Your task to perform on an android device: Open the calendar app, open the side menu, and click the "Day" option Image 0: 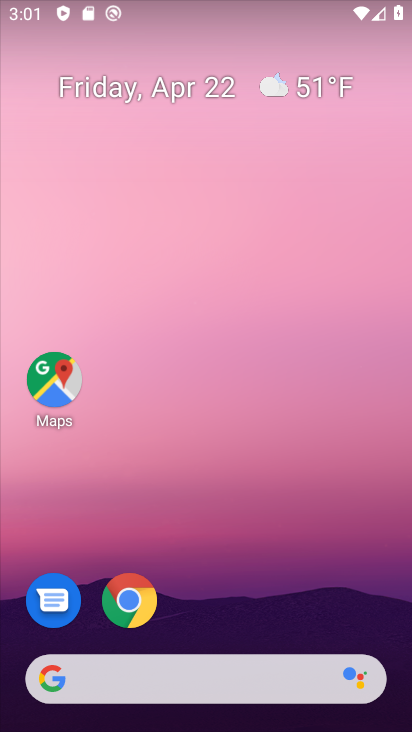
Step 0: click (143, 120)
Your task to perform on an android device: Open the calendar app, open the side menu, and click the "Day" option Image 1: 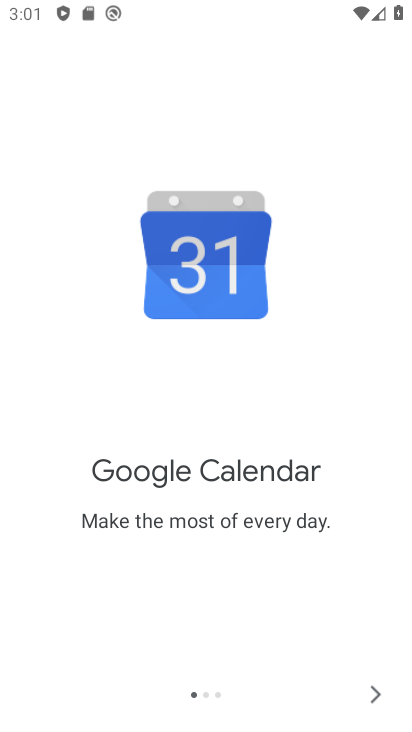
Step 1: click (365, 688)
Your task to perform on an android device: Open the calendar app, open the side menu, and click the "Day" option Image 2: 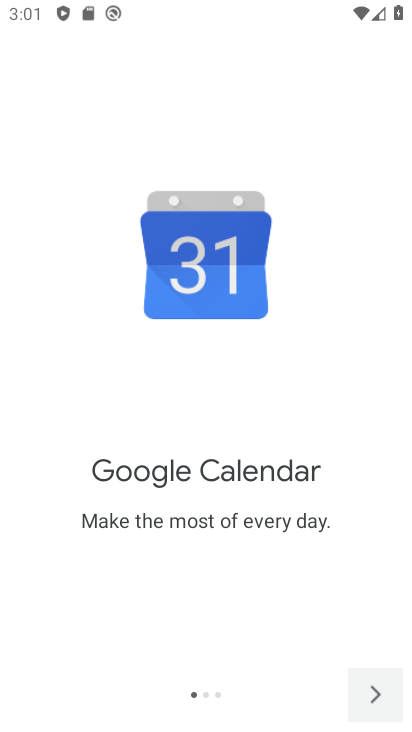
Step 2: click (370, 690)
Your task to perform on an android device: Open the calendar app, open the side menu, and click the "Day" option Image 3: 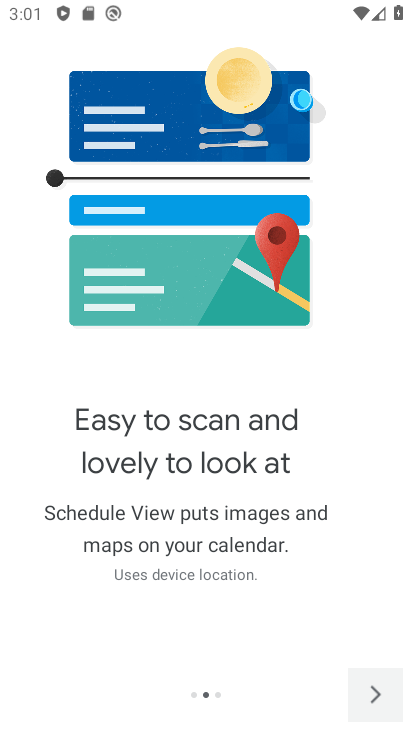
Step 3: click (368, 688)
Your task to perform on an android device: Open the calendar app, open the side menu, and click the "Day" option Image 4: 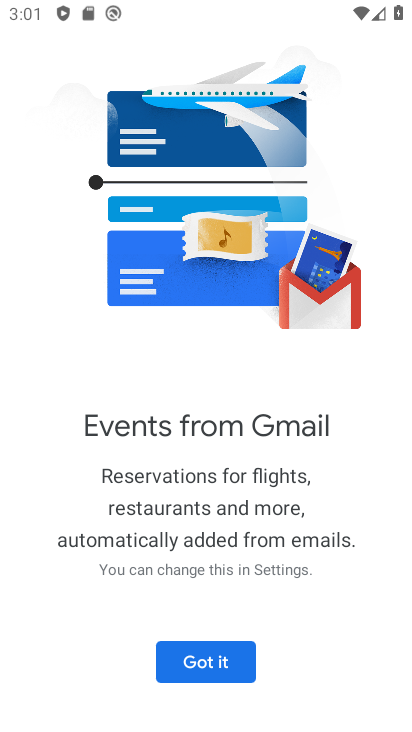
Step 4: click (370, 682)
Your task to perform on an android device: Open the calendar app, open the side menu, and click the "Day" option Image 5: 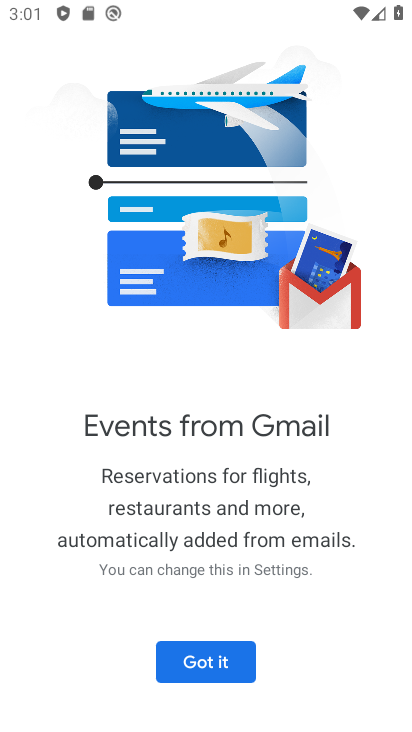
Step 5: click (204, 656)
Your task to perform on an android device: Open the calendar app, open the side menu, and click the "Day" option Image 6: 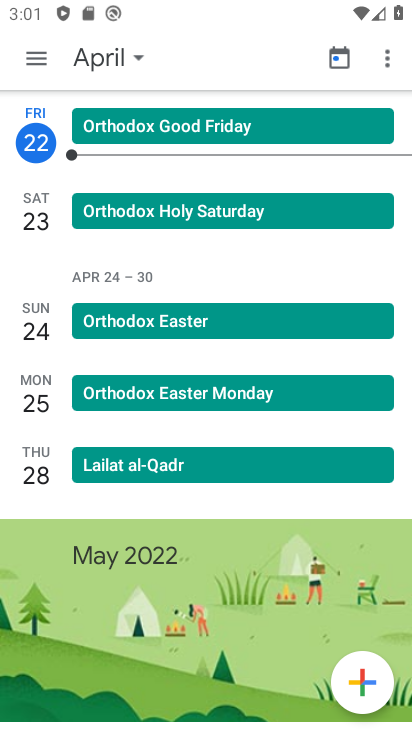
Step 6: click (34, 60)
Your task to perform on an android device: Open the calendar app, open the side menu, and click the "Day" option Image 7: 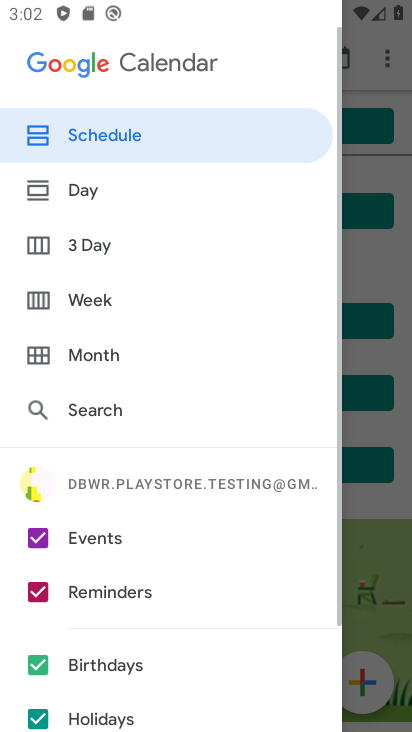
Step 7: click (89, 183)
Your task to perform on an android device: Open the calendar app, open the side menu, and click the "Day" option Image 8: 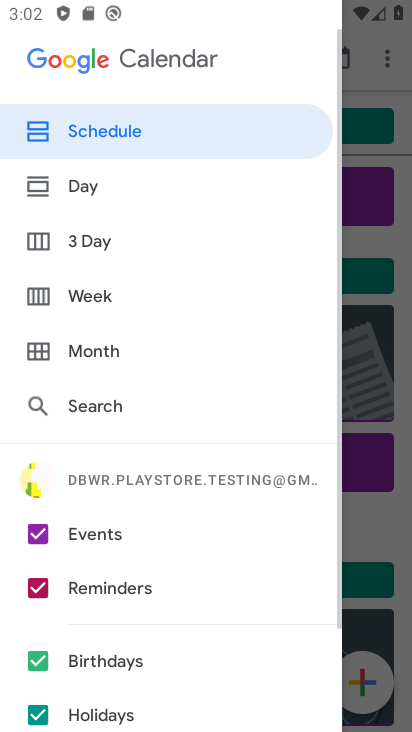
Step 8: click (74, 183)
Your task to perform on an android device: Open the calendar app, open the side menu, and click the "Day" option Image 9: 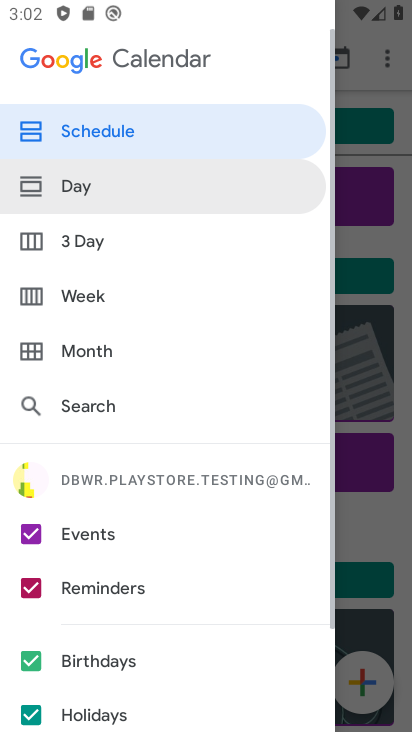
Step 9: click (62, 188)
Your task to perform on an android device: Open the calendar app, open the side menu, and click the "Day" option Image 10: 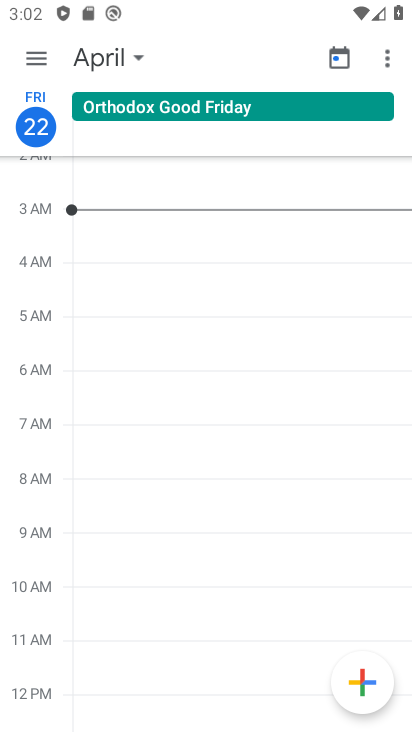
Step 10: task complete